Your task to perform on an android device: turn off location history Image 0: 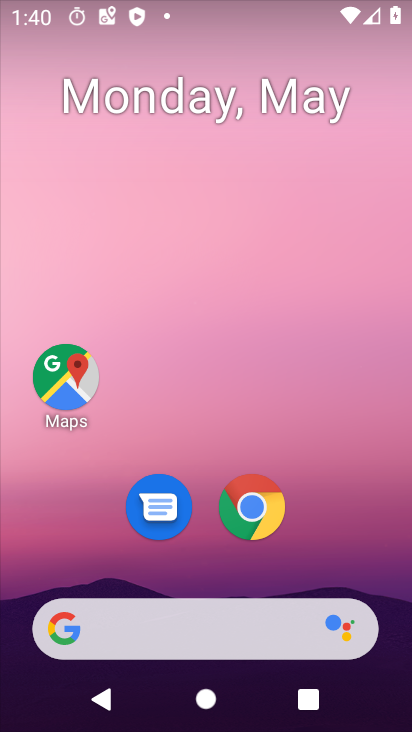
Step 0: drag from (343, 557) to (318, 180)
Your task to perform on an android device: turn off location history Image 1: 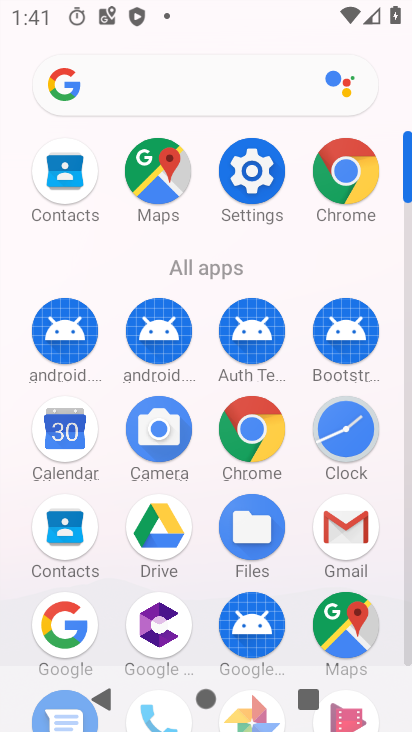
Step 1: drag from (289, 616) to (284, 294)
Your task to perform on an android device: turn off location history Image 2: 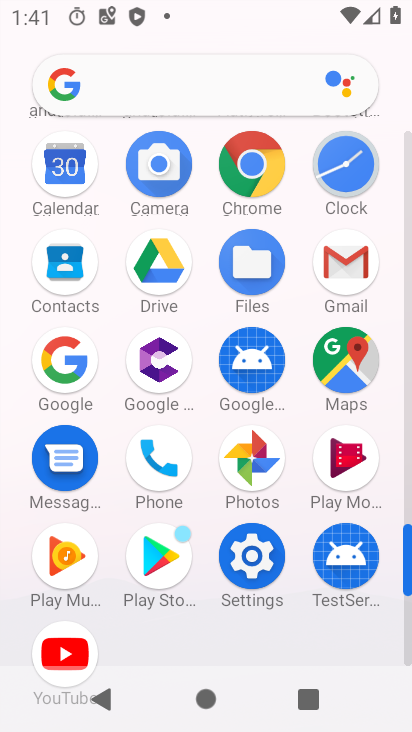
Step 2: click (239, 572)
Your task to perform on an android device: turn off location history Image 3: 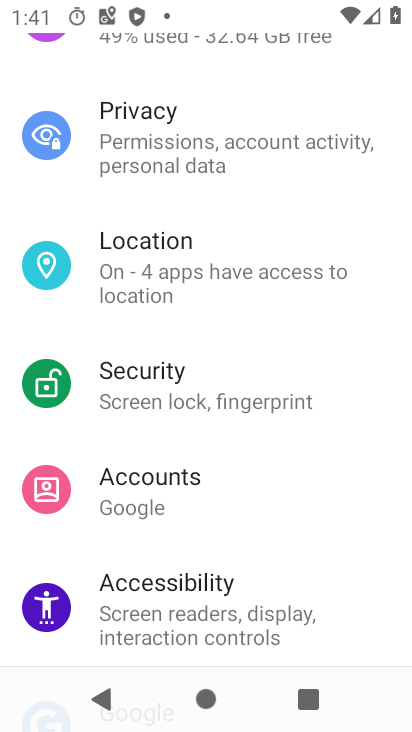
Step 3: click (197, 270)
Your task to perform on an android device: turn off location history Image 4: 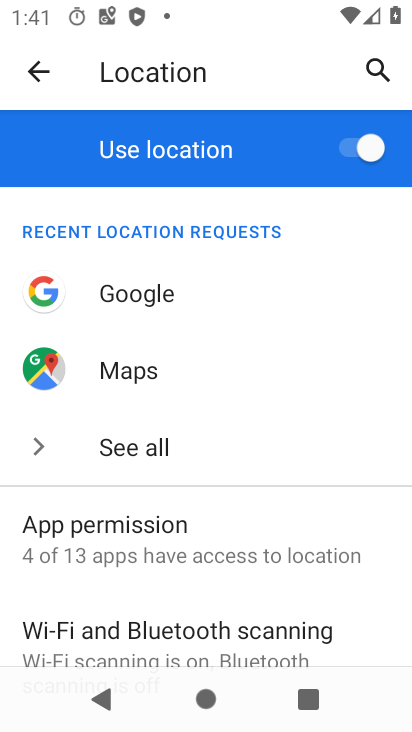
Step 4: drag from (342, 618) to (339, 376)
Your task to perform on an android device: turn off location history Image 5: 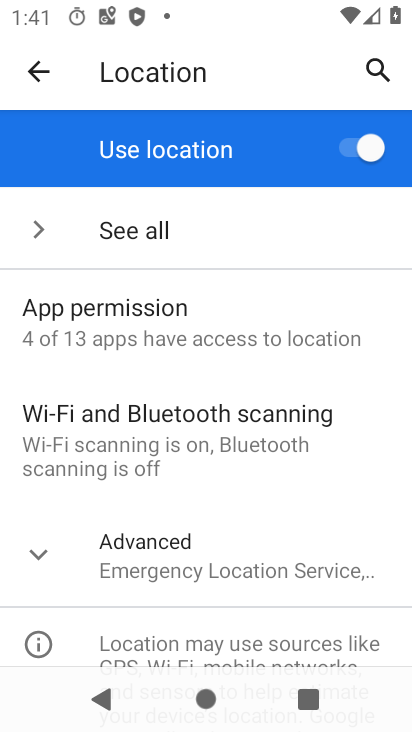
Step 5: drag from (306, 586) to (315, 322)
Your task to perform on an android device: turn off location history Image 6: 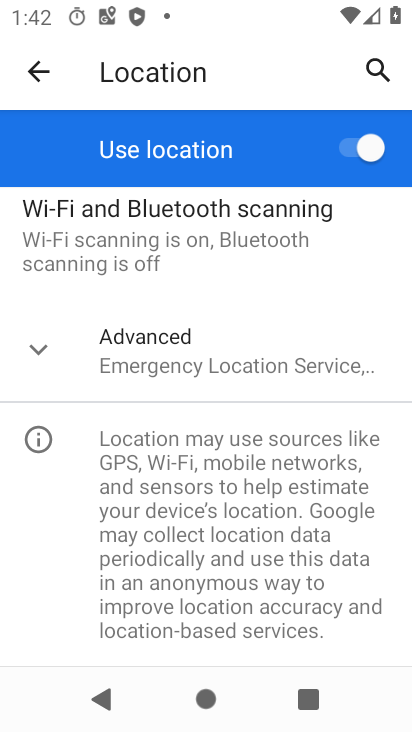
Step 6: drag from (294, 349) to (272, 589)
Your task to perform on an android device: turn off location history Image 7: 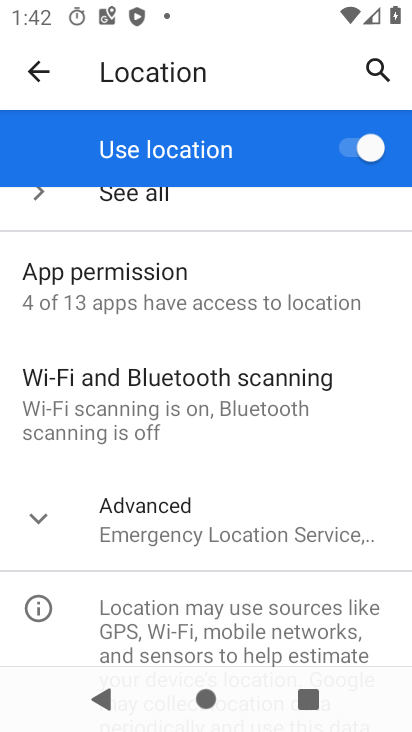
Step 7: click (271, 537)
Your task to perform on an android device: turn off location history Image 8: 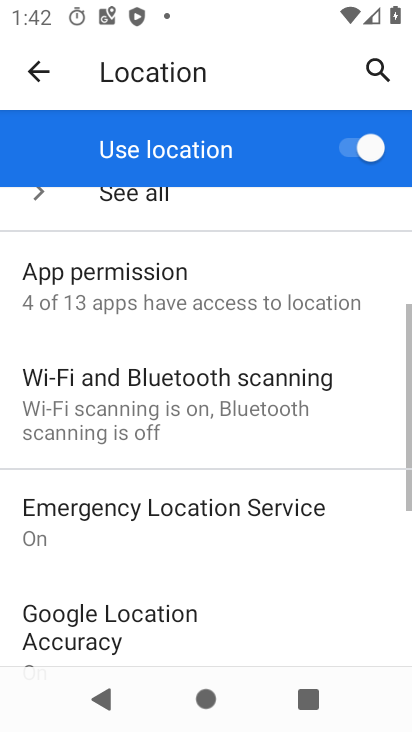
Step 8: drag from (278, 610) to (261, 331)
Your task to perform on an android device: turn off location history Image 9: 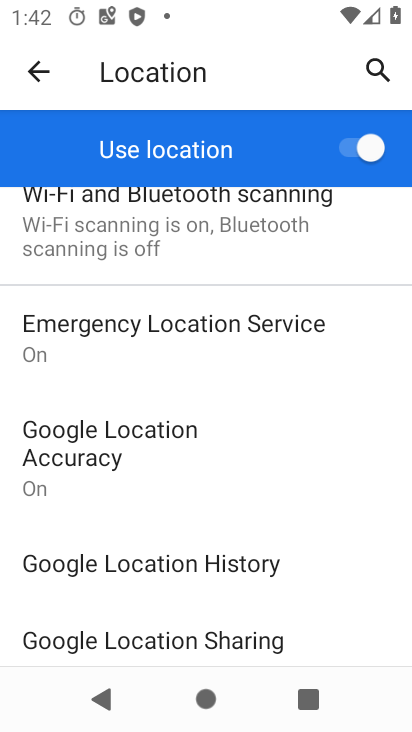
Step 9: drag from (208, 593) to (218, 374)
Your task to perform on an android device: turn off location history Image 10: 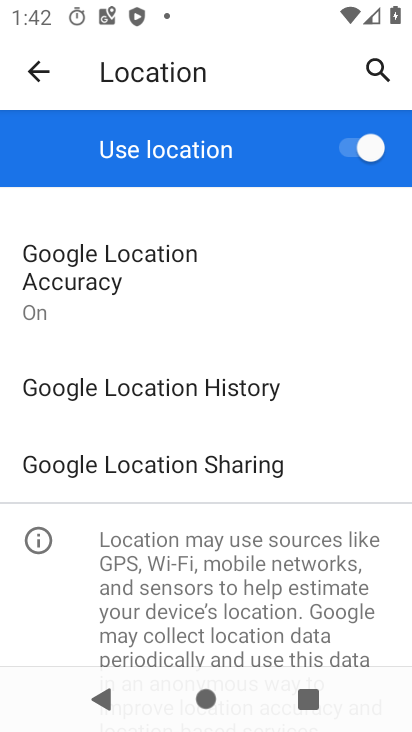
Step 10: click (227, 395)
Your task to perform on an android device: turn off location history Image 11: 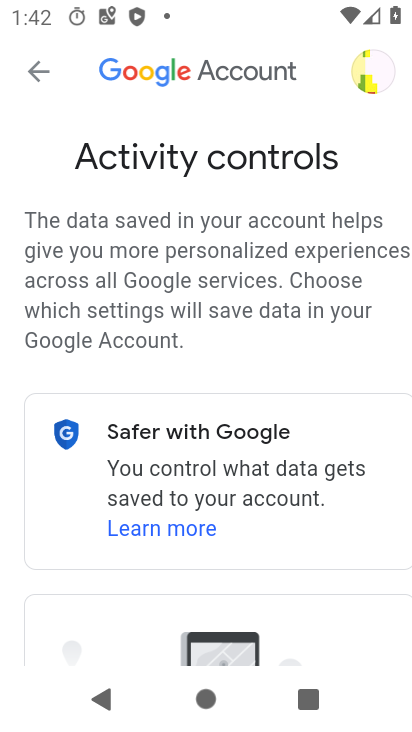
Step 11: task complete